Your task to perform on an android device: open app "Pandora - Music & Podcasts" (install if not already installed) Image 0: 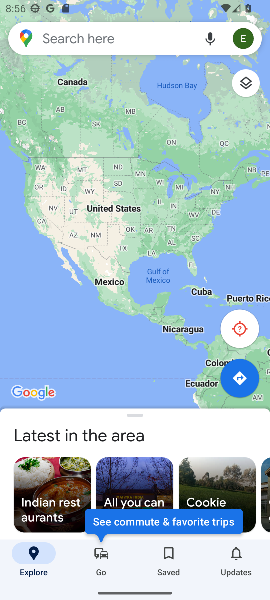
Step 0: press home button
Your task to perform on an android device: open app "Pandora - Music & Podcasts" (install if not already installed) Image 1: 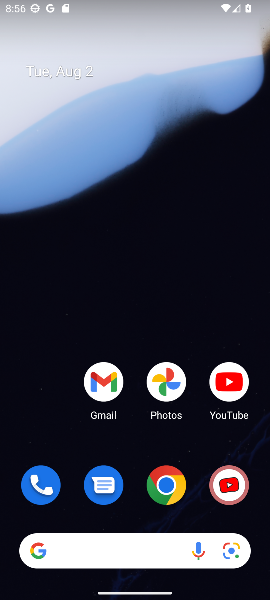
Step 1: click (120, 401)
Your task to perform on an android device: open app "Pandora - Music & Podcasts" (install if not already installed) Image 2: 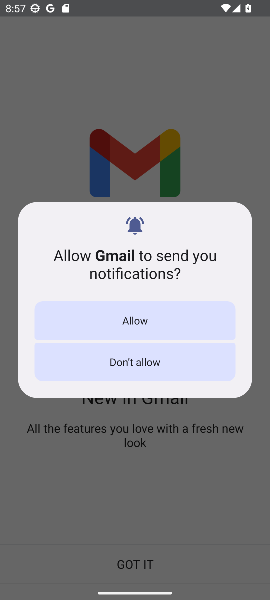
Step 2: press back button
Your task to perform on an android device: open app "Pandora - Music & Podcasts" (install if not already installed) Image 3: 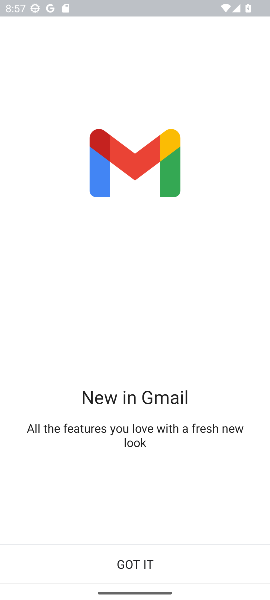
Step 3: press home button
Your task to perform on an android device: open app "Pandora - Music & Podcasts" (install if not already installed) Image 4: 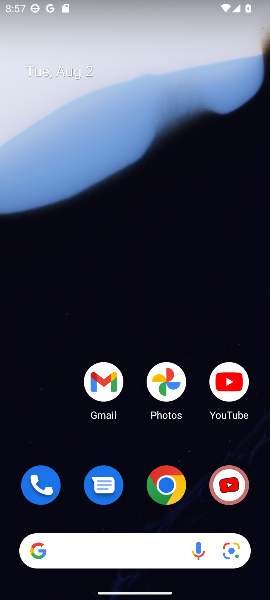
Step 4: drag from (138, 520) to (262, 281)
Your task to perform on an android device: open app "Pandora - Music & Podcasts" (install if not already installed) Image 5: 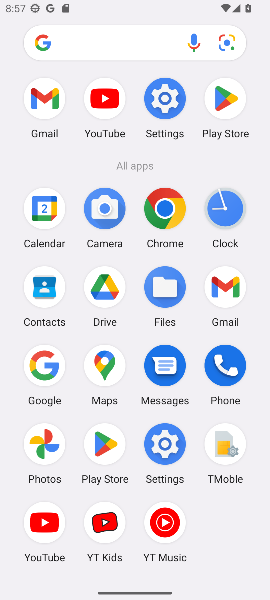
Step 5: click (109, 449)
Your task to perform on an android device: open app "Pandora - Music & Podcasts" (install if not already installed) Image 6: 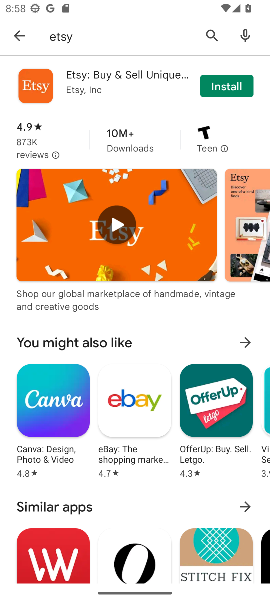
Step 6: click (240, 77)
Your task to perform on an android device: open app "Pandora - Music & Podcasts" (install if not already installed) Image 7: 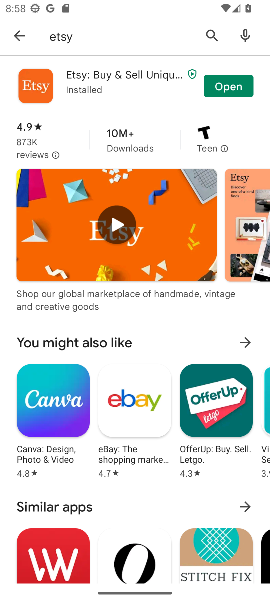
Step 7: click (13, 30)
Your task to perform on an android device: open app "Pandora - Music & Podcasts" (install if not already installed) Image 8: 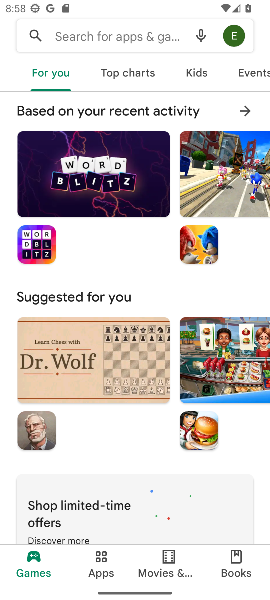
Step 8: click (97, 21)
Your task to perform on an android device: open app "Pandora - Music & Podcasts" (install if not already installed) Image 9: 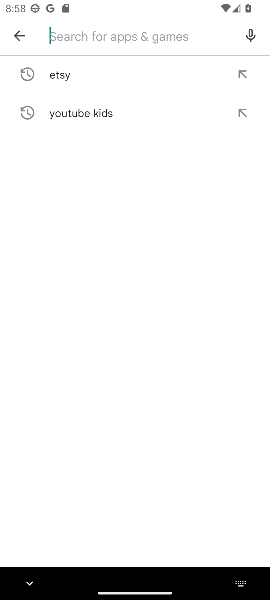
Step 9: type "Pandora"
Your task to perform on an android device: open app "Pandora - Music & Podcasts" (install if not already installed) Image 10: 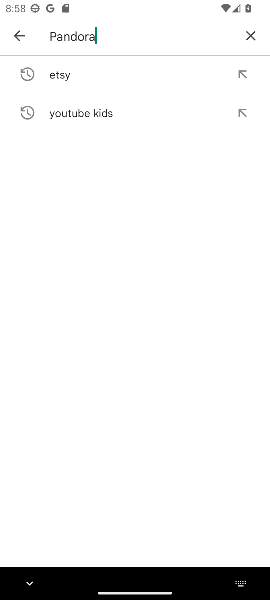
Step 10: type ""
Your task to perform on an android device: open app "Pandora - Music & Podcasts" (install if not already installed) Image 11: 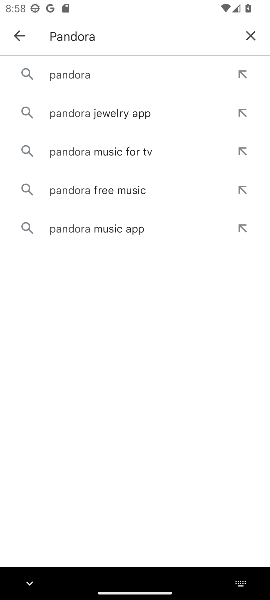
Step 11: click (89, 72)
Your task to perform on an android device: open app "Pandora - Music & Podcasts" (install if not already installed) Image 12: 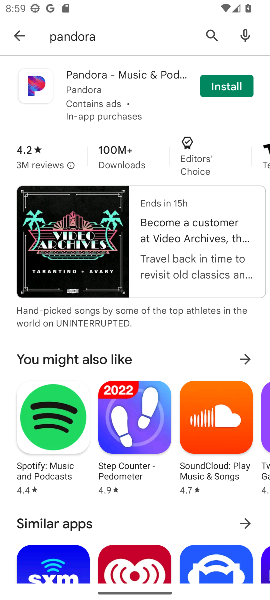
Step 12: click (236, 89)
Your task to perform on an android device: open app "Pandora - Music & Podcasts" (install if not already installed) Image 13: 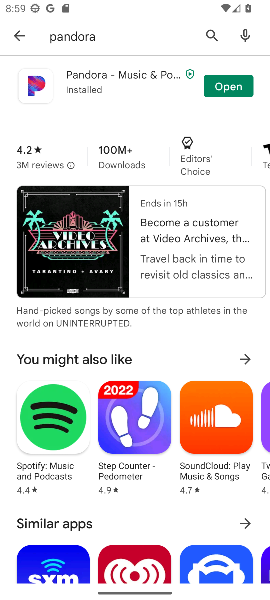
Step 13: click (225, 80)
Your task to perform on an android device: open app "Pandora - Music & Podcasts" (install if not already installed) Image 14: 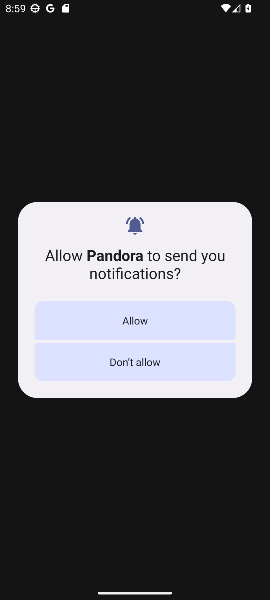
Step 14: task complete